Your task to perform on an android device: What's the weather? Image 0: 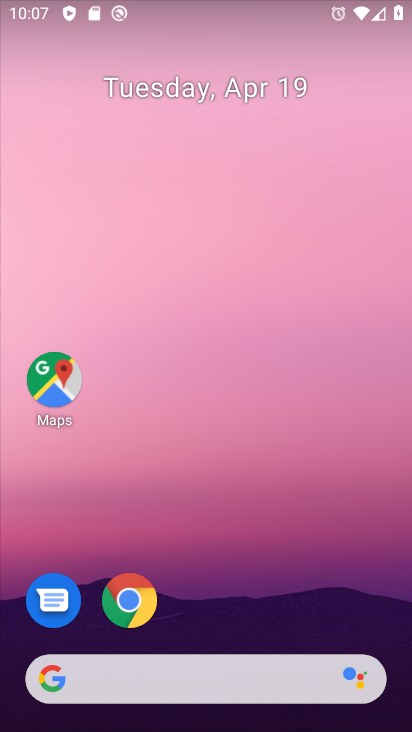
Step 0: click (182, 668)
Your task to perform on an android device: What's the weather? Image 1: 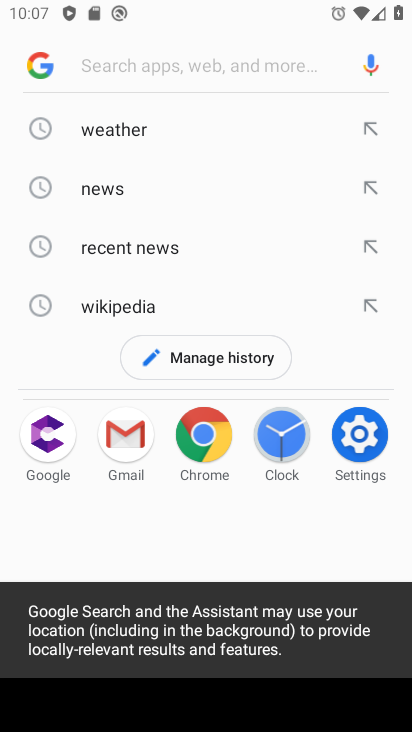
Step 1: click (101, 135)
Your task to perform on an android device: What's the weather? Image 2: 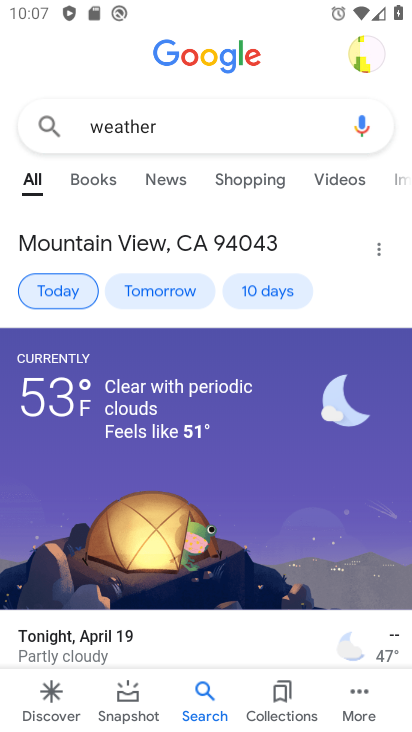
Step 2: task complete